Your task to perform on an android device: Clear the cart on bestbuy.com. Add "usb-c to usb-b" to the cart on bestbuy.com, then select checkout. Image 0: 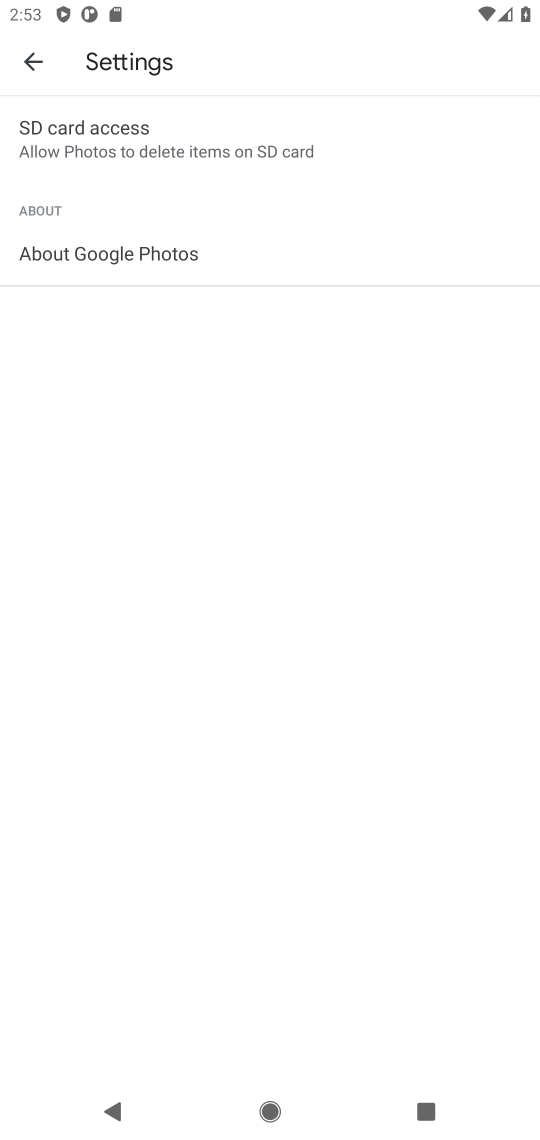
Step 0: press home button
Your task to perform on an android device: Clear the cart on bestbuy.com. Add "usb-c to usb-b" to the cart on bestbuy.com, then select checkout. Image 1: 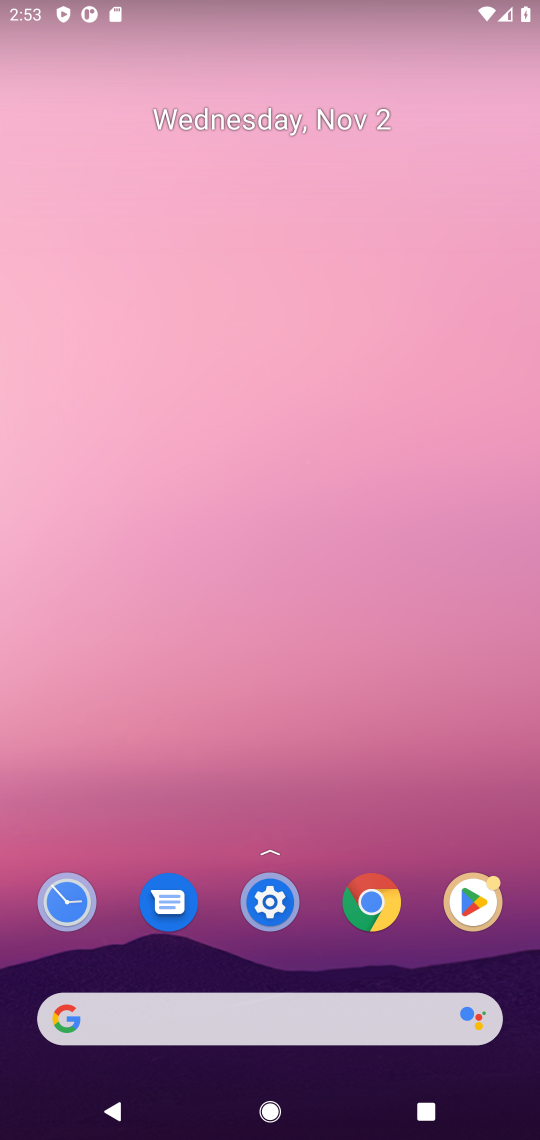
Step 1: click (373, 901)
Your task to perform on an android device: Clear the cart on bestbuy.com. Add "usb-c to usb-b" to the cart on bestbuy.com, then select checkout. Image 2: 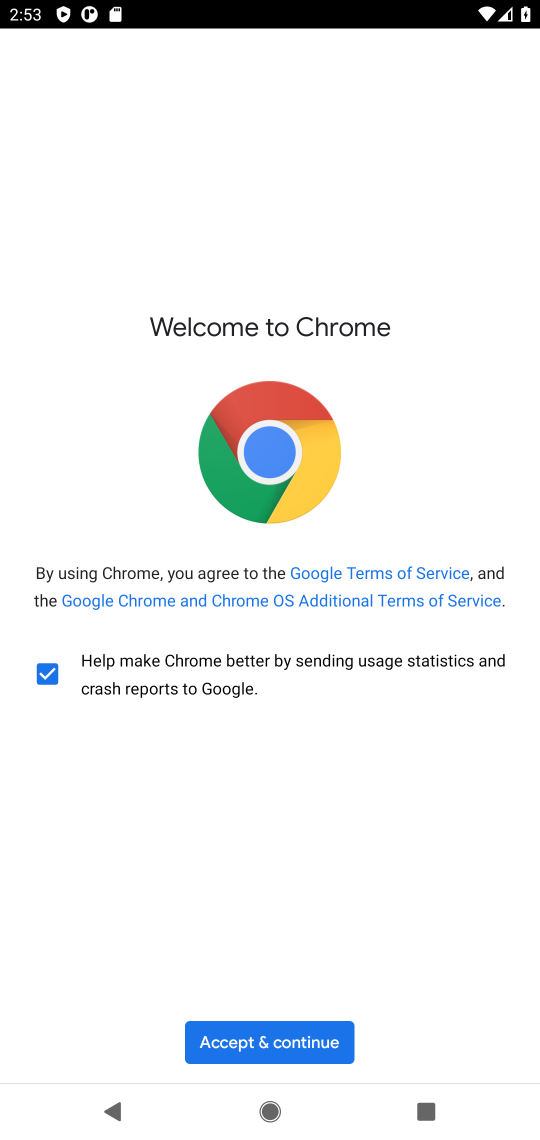
Step 2: click (274, 1040)
Your task to perform on an android device: Clear the cart on bestbuy.com. Add "usb-c to usb-b" to the cart on bestbuy.com, then select checkout. Image 3: 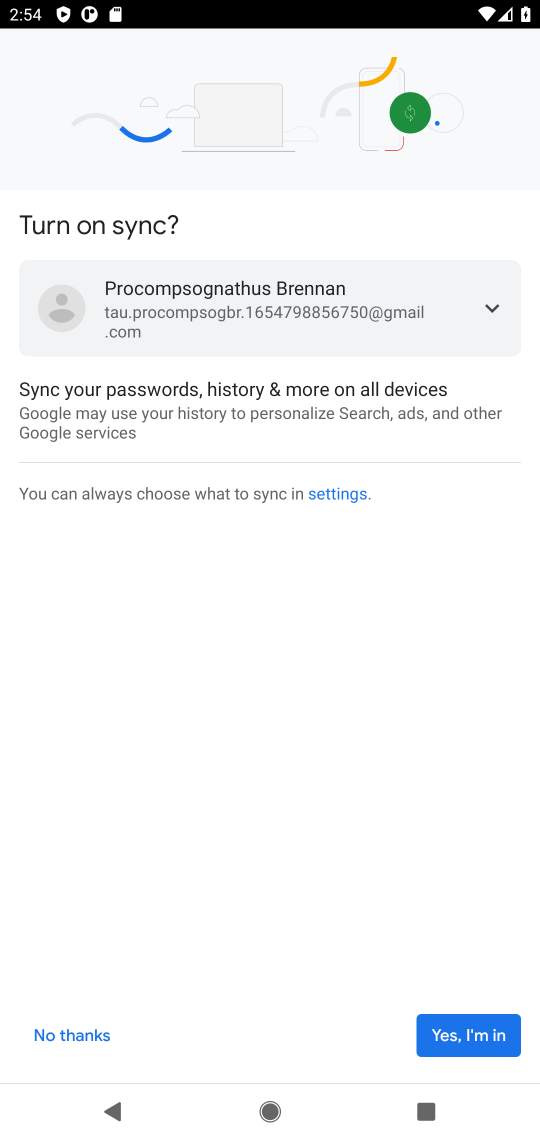
Step 3: click (477, 1033)
Your task to perform on an android device: Clear the cart on bestbuy.com. Add "usb-c to usb-b" to the cart on bestbuy.com, then select checkout. Image 4: 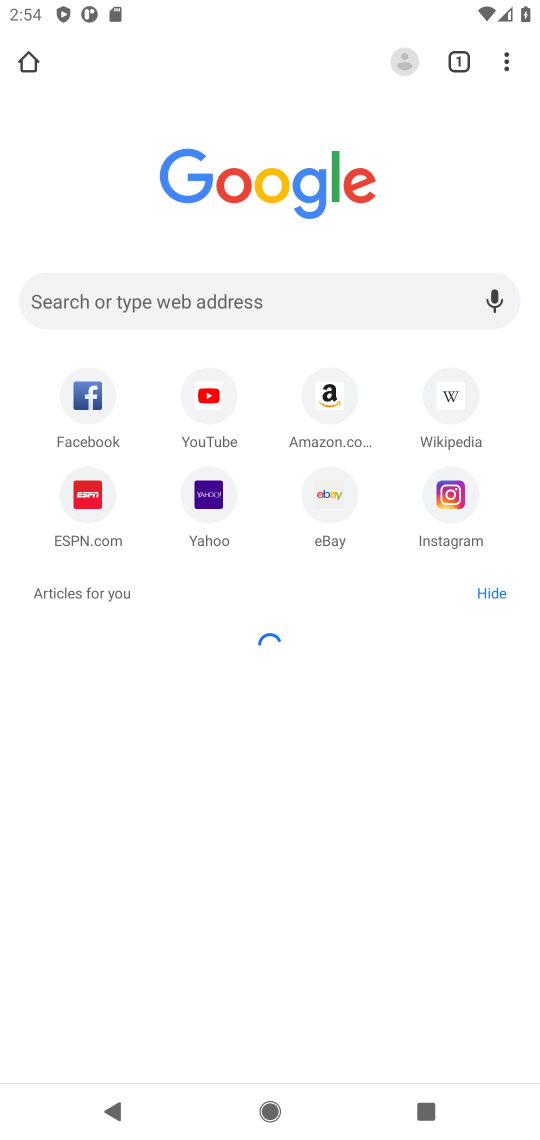
Step 4: click (201, 298)
Your task to perform on an android device: Clear the cart on bestbuy.com. Add "usb-c to usb-b" to the cart on bestbuy.com, then select checkout. Image 5: 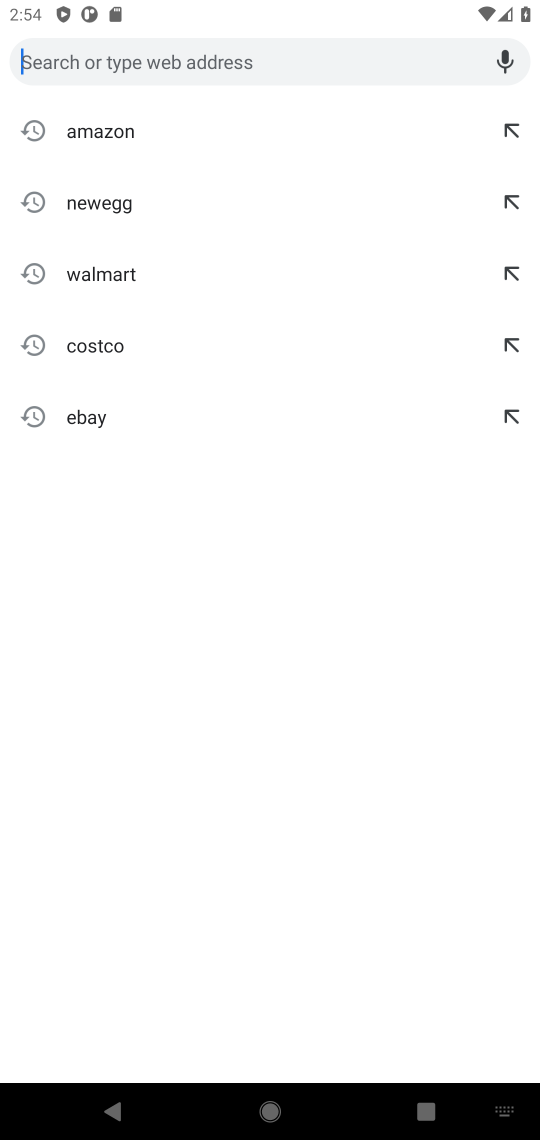
Step 5: type "bestbuy.com"
Your task to perform on an android device: Clear the cart on bestbuy.com. Add "usb-c to usb-b" to the cart on bestbuy.com, then select checkout. Image 6: 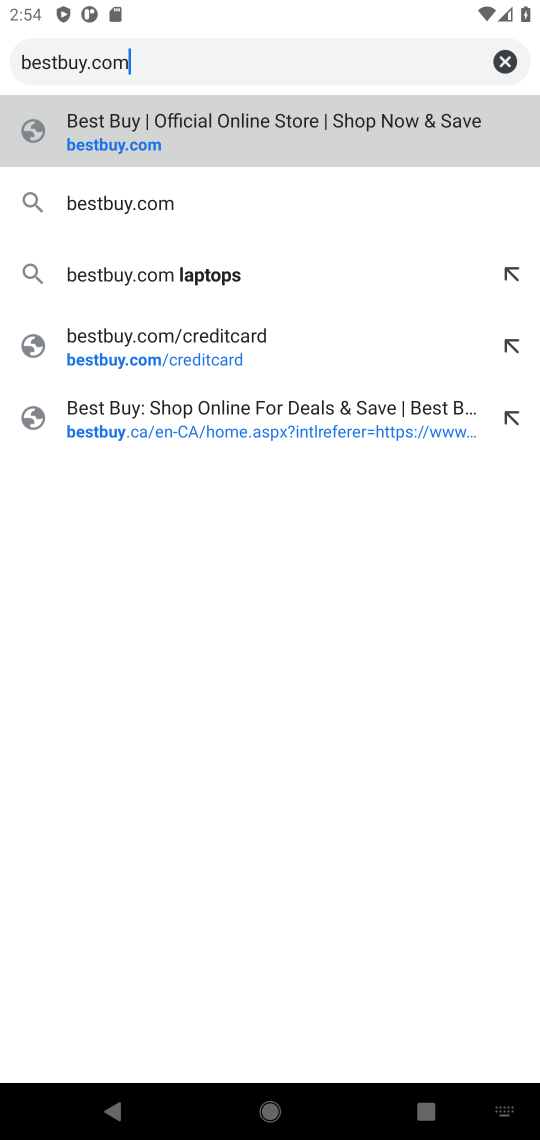
Step 6: click (106, 127)
Your task to perform on an android device: Clear the cart on bestbuy.com. Add "usb-c to usb-b" to the cart on bestbuy.com, then select checkout. Image 7: 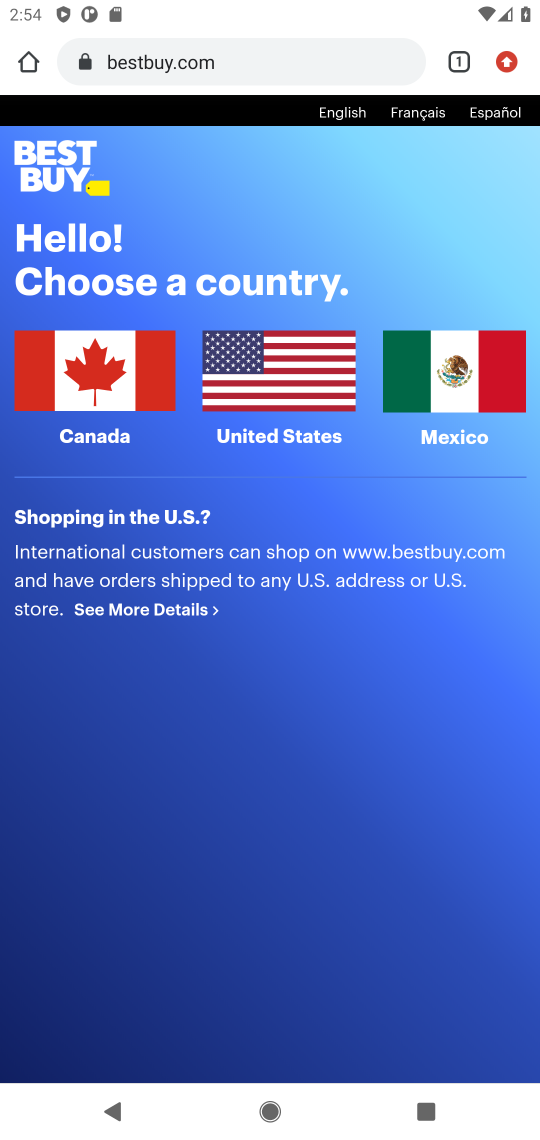
Step 7: click (291, 395)
Your task to perform on an android device: Clear the cart on bestbuy.com. Add "usb-c to usb-b" to the cart on bestbuy.com, then select checkout. Image 8: 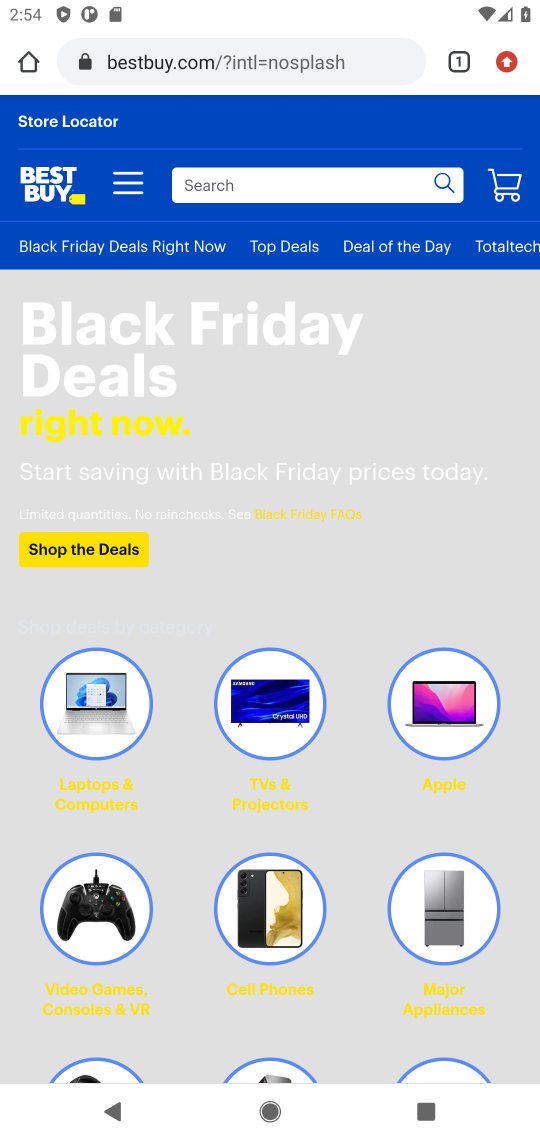
Step 8: click (504, 179)
Your task to perform on an android device: Clear the cart on bestbuy.com. Add "usb-c to usb-b" to the cart on bestbuy.com, then select checkout. Image 9: 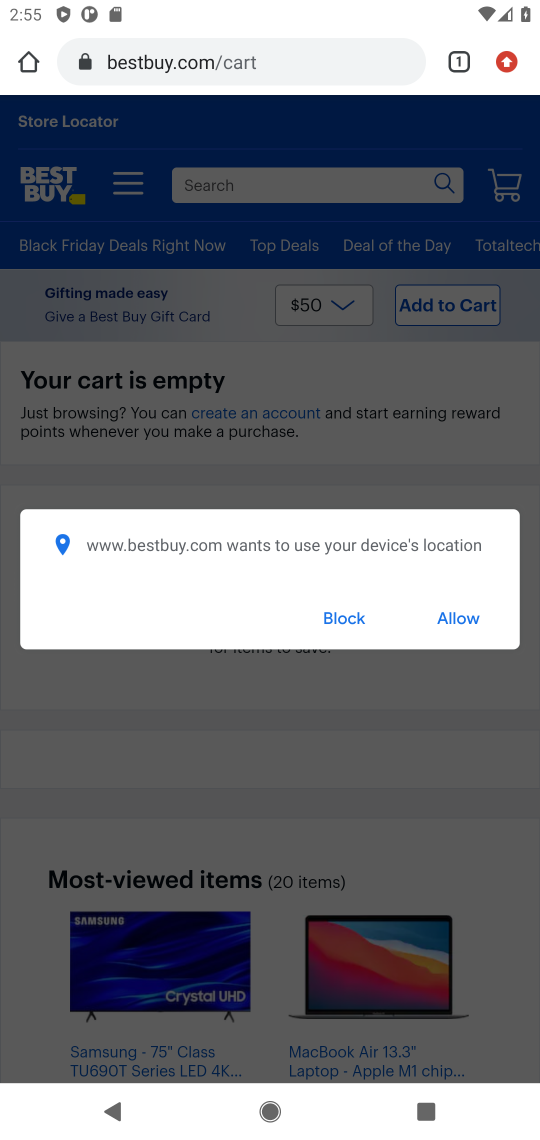
Step 9: click (453, 619)
Your task to perform on an android device: Clear the cart on bestbuy.com. Add "usb-c to usb-b" to the cart on bestbuy.com, then select checkout. Image 10: 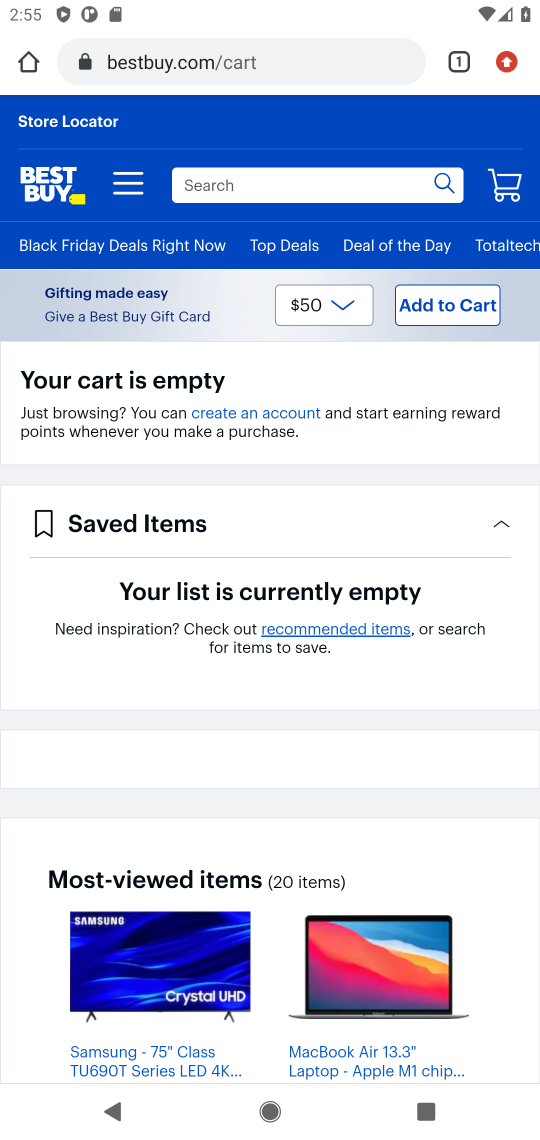
Step 10: click (236, 184)
Your task to perform on an android device: Clear the cart on bestbuy.com. Add "usb-c to usb-b" to the cart on bestbuy.com, then select checkout. Image 11: 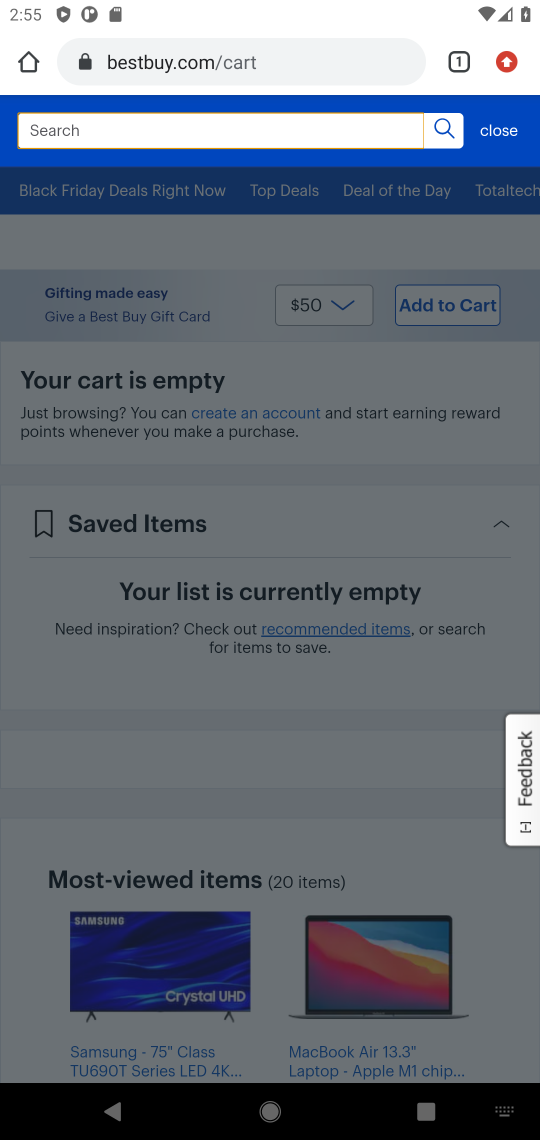
Step 11: type "usb-c to usb-b"
Your task to perform on an android device: Clear the cart on bestbuy.com. Add "usb-c to usb-b" to the cart on bestbuy.com, then select checkout. Image 12: 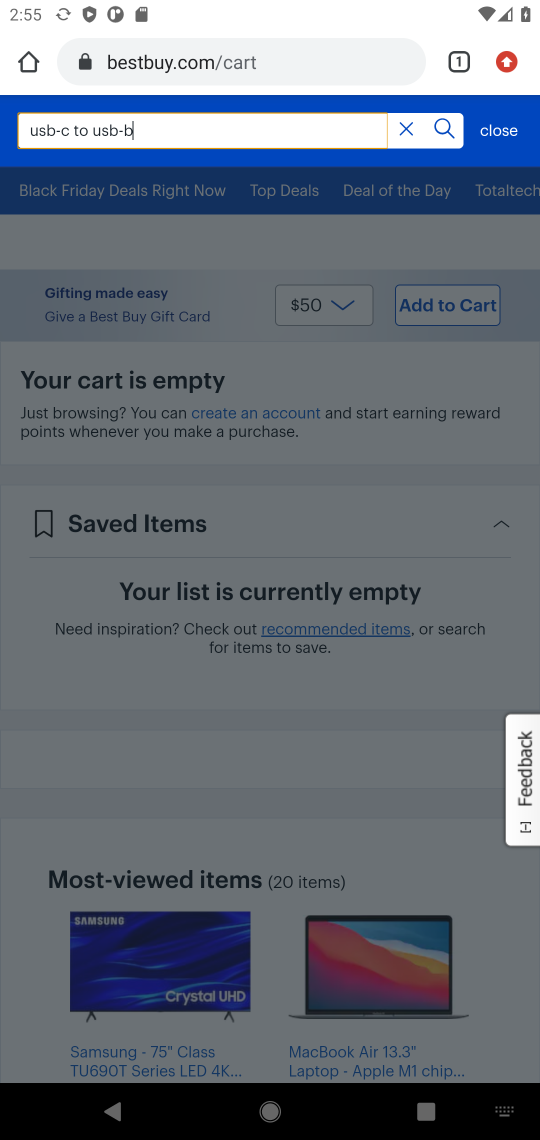
Step 12: click (445, 124)
Your task to perform on an android device: Clear the cart on bestbuy.com. Add "usb-c to usb-b" to the cart on bestbuy.com, then select checkout. Image 13: 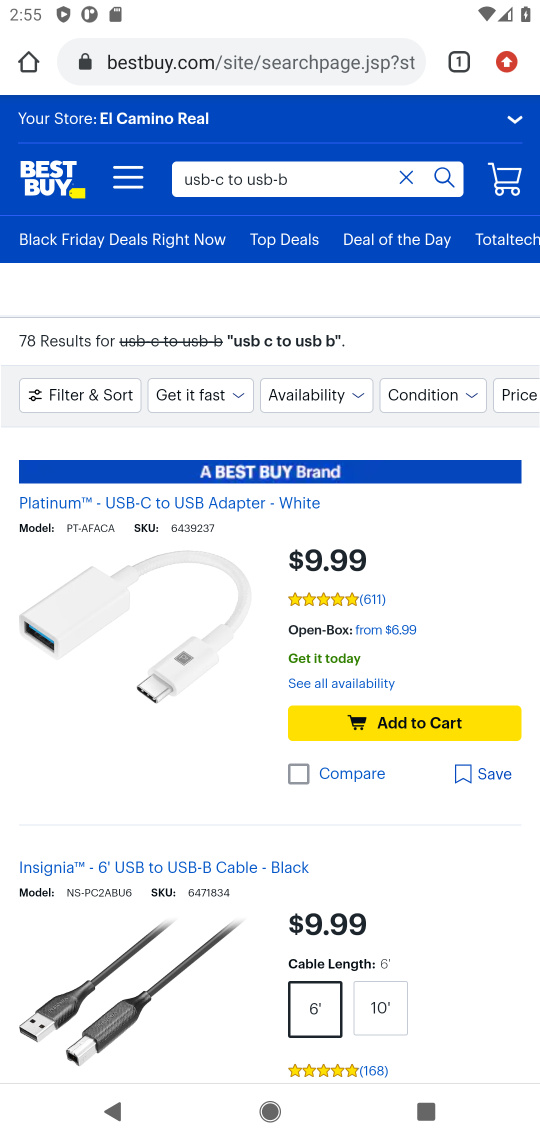
Step 13: click (398, 719)
Your task to perform on an android device: Clear the cart on bestbuy.com. Add "usb-c to usb-b" to the cart on bestbuy.com, then select checkout. Image 14: 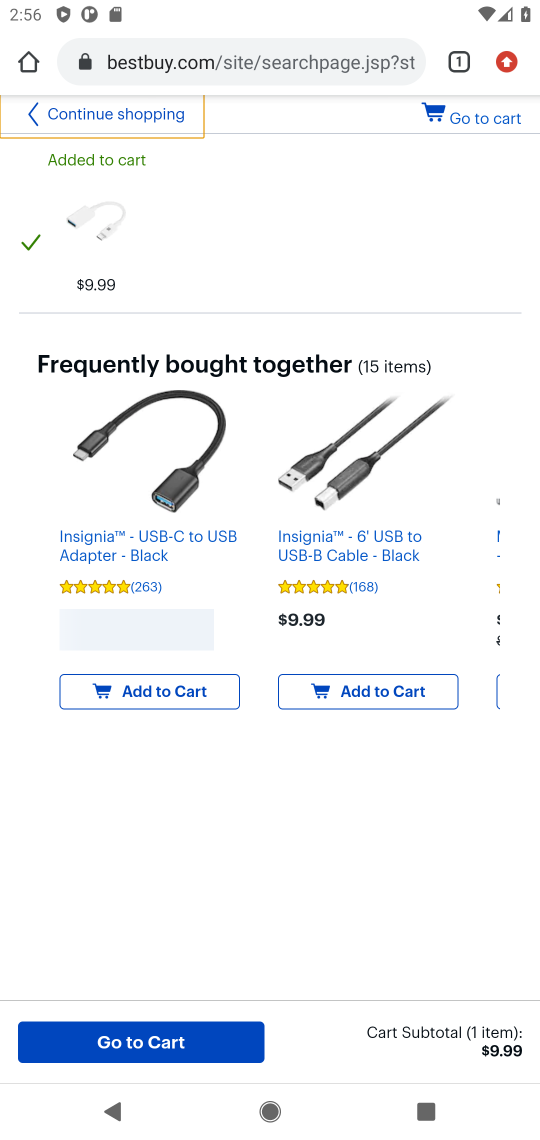
Step 14: click (128, 1041)
Your task to perform on an android device: Clear the cart on bestbuy.com. Add "usb-c to usb-b" to the cart on bestbuy.com, then select checkout. Image 15: 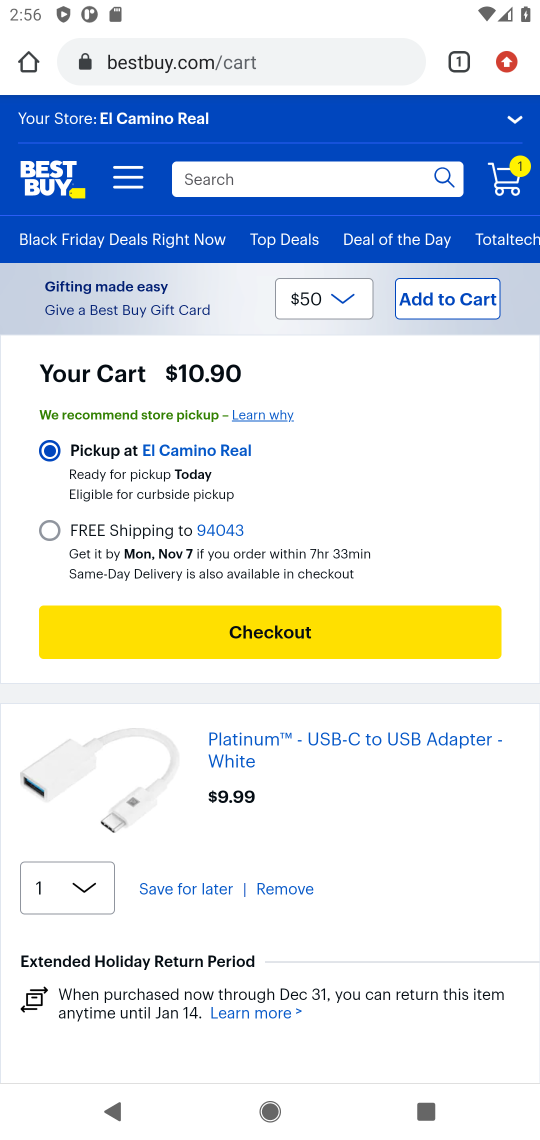
Step 15: click (271, 623)
Your task to perform on an android device: Clear the cart on bestbuy.com. Add "usb-c to usb-b" to the cart on bestbuy.com, then select checkout. Image 16: 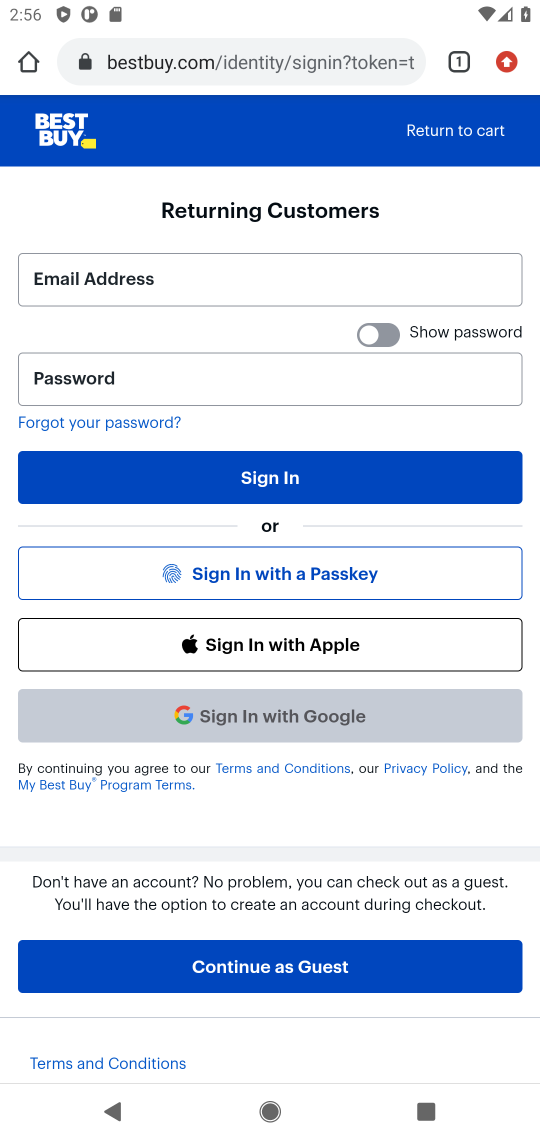
Step 16: task complete